Your task to perform on an android device: change text size in settings app Image 0: 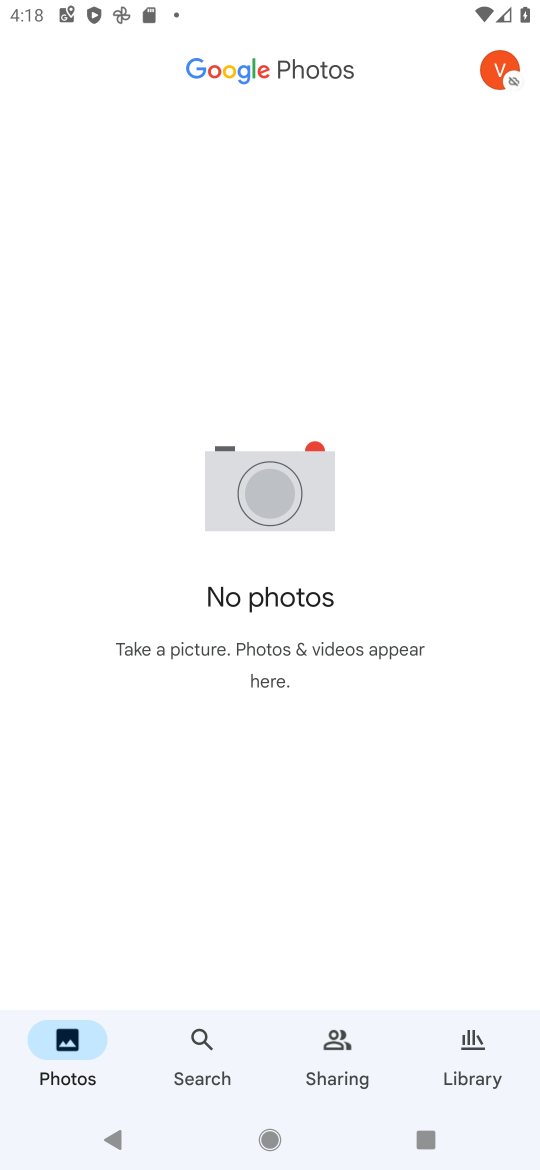
Step 0: click (275, 1146)
Your task to perform on an android device: change text size in settings app Image 1: 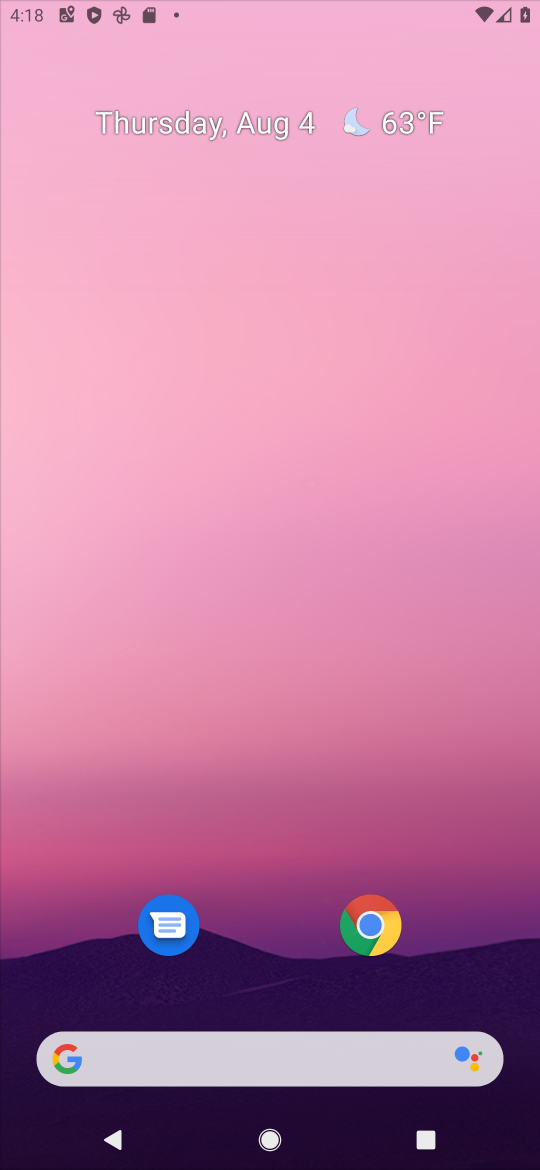
Step 1: drag from (289, 879) to (259, 59)
Your task to perform on an android device: change text size in settings app Image 2: 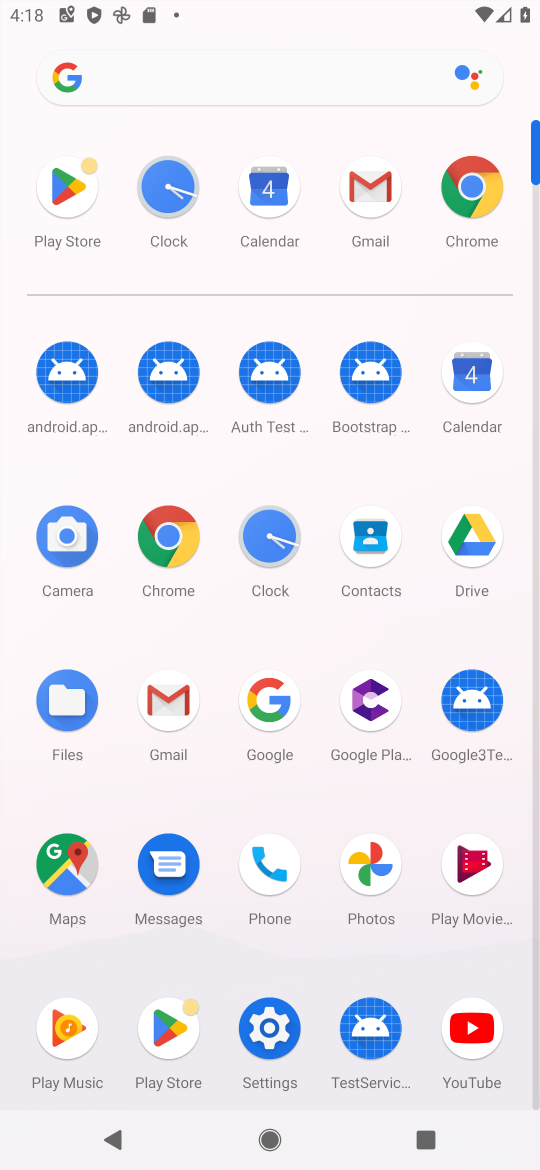
Step 2: click (268, 1030)
Your task to perform on an android device: change text size in settings app Image 3: 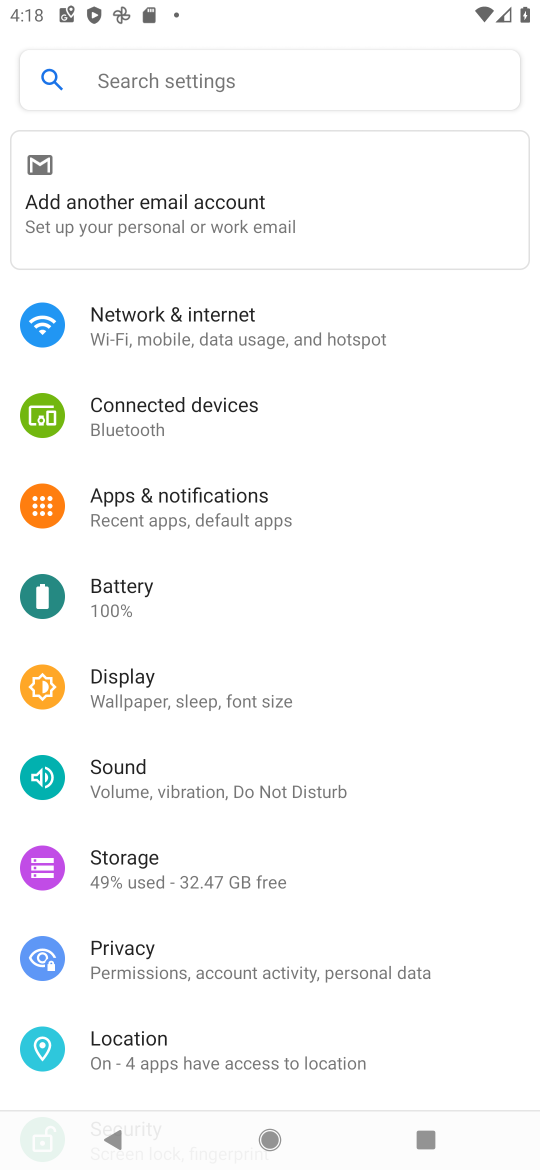
Step 3: click (148, 703)
Your task to perform on an android device: change text size in settings app Image 4: 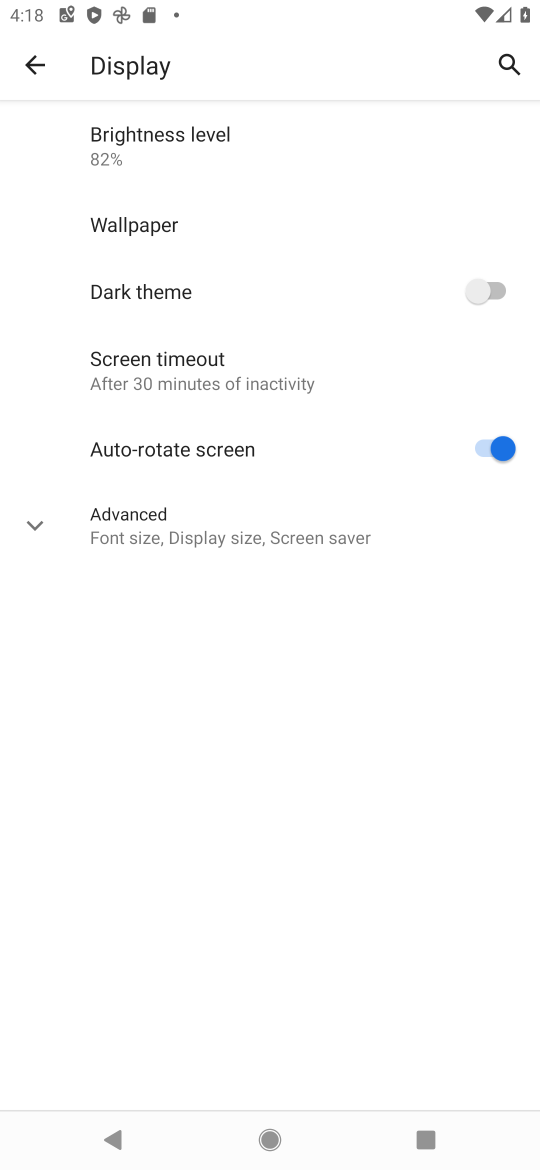
Step 4: click (195, 525)
Your task to perform on an android device: change text size in settings app Image 5: 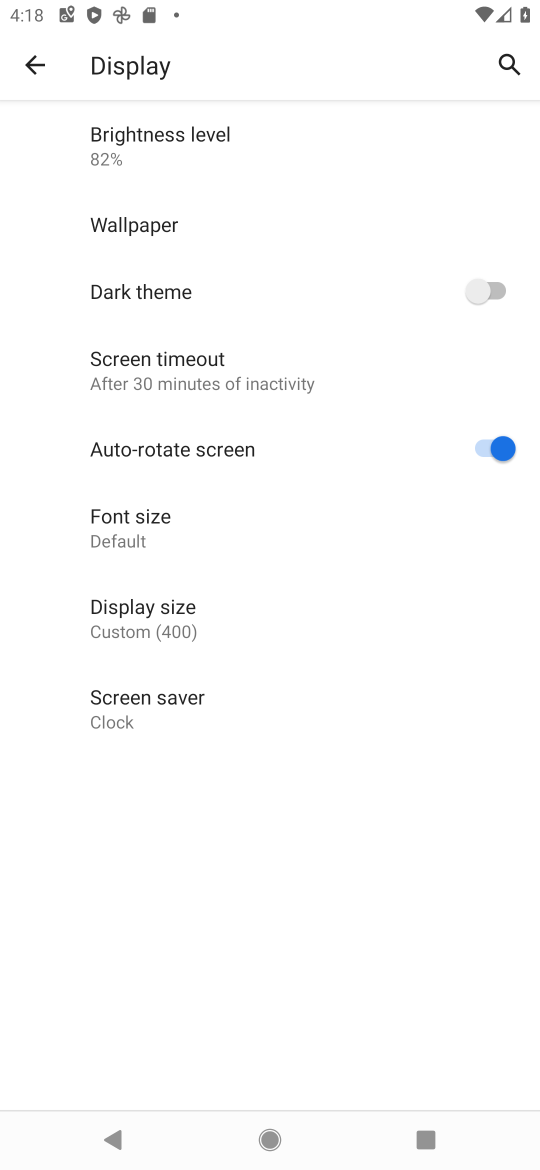
Step 5: click (173, 531)
Your task to perform on an android device: change text size in settings app Image 6: 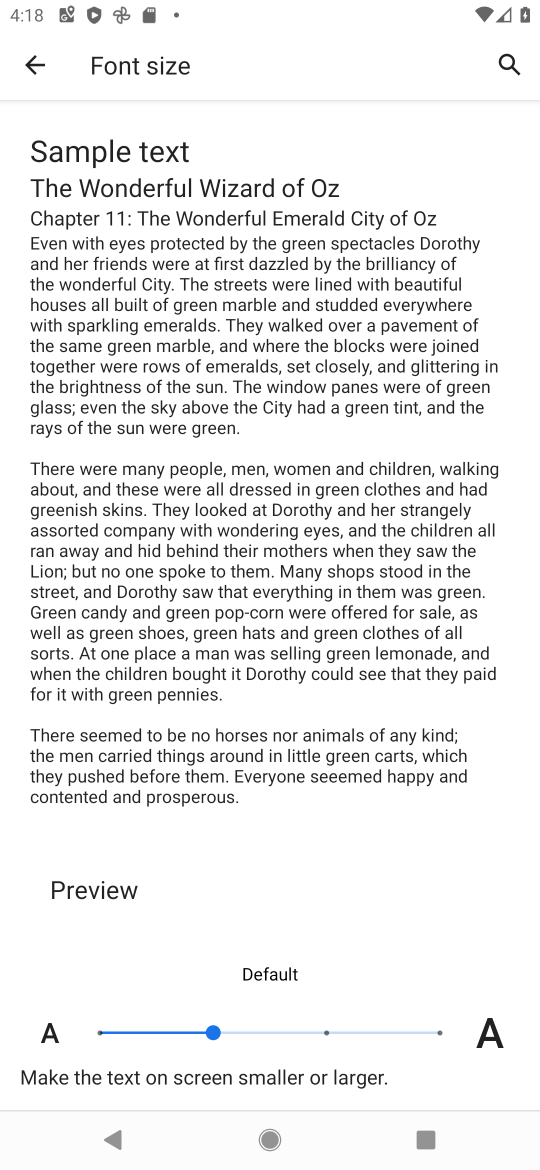
Step 6: click (261, 1032)
Your task to perform on an android device: change text size in settings app Image 7: 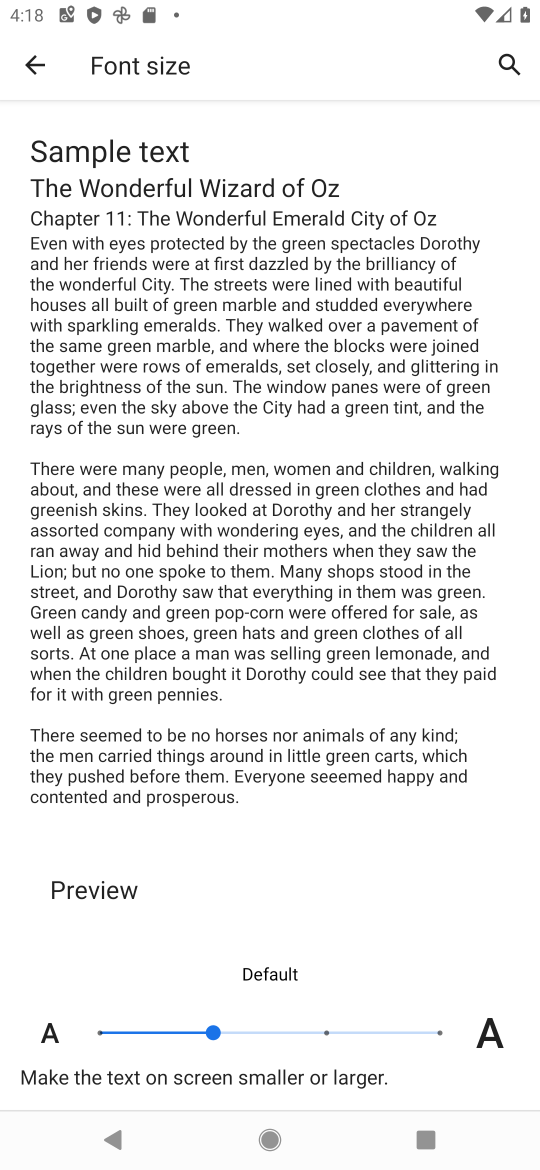
Step 7: task complete